Your task to perform on an android device: open chrome and create a bookmark for the current page Image 0: 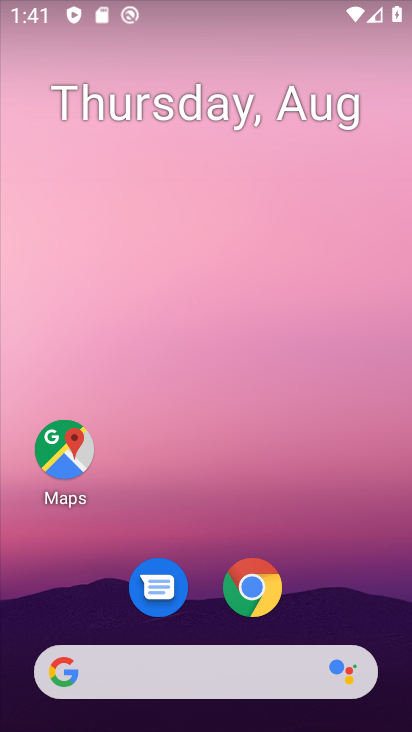
Step 0: click (250, 584)
Your task to perform on an android device: open chrome and create a bookmark for the current page Image 1: 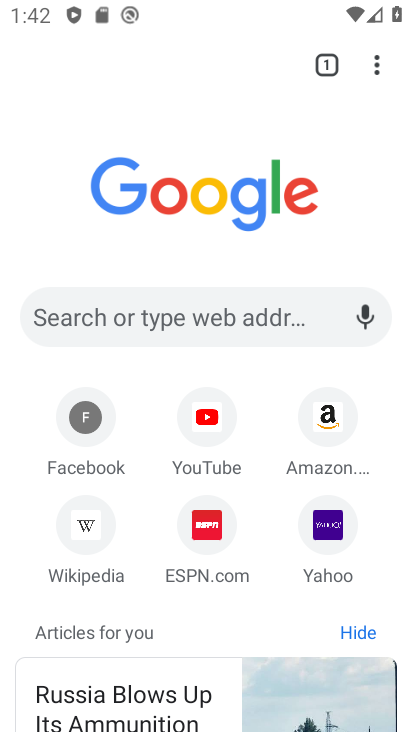
Step 1: click (372, 69)
Your task to perform on an android device: open chrome and create a bookmark for the current page Image 2: 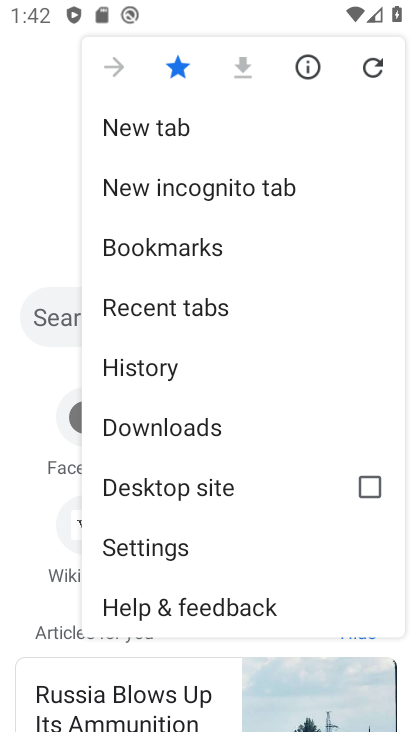
Step 2: task complete